Your task to perform on an android device: Empty the shopping cart on costco.com. Add bose soundlink mini to the cart on costco.com, then select checkout. Image 0: 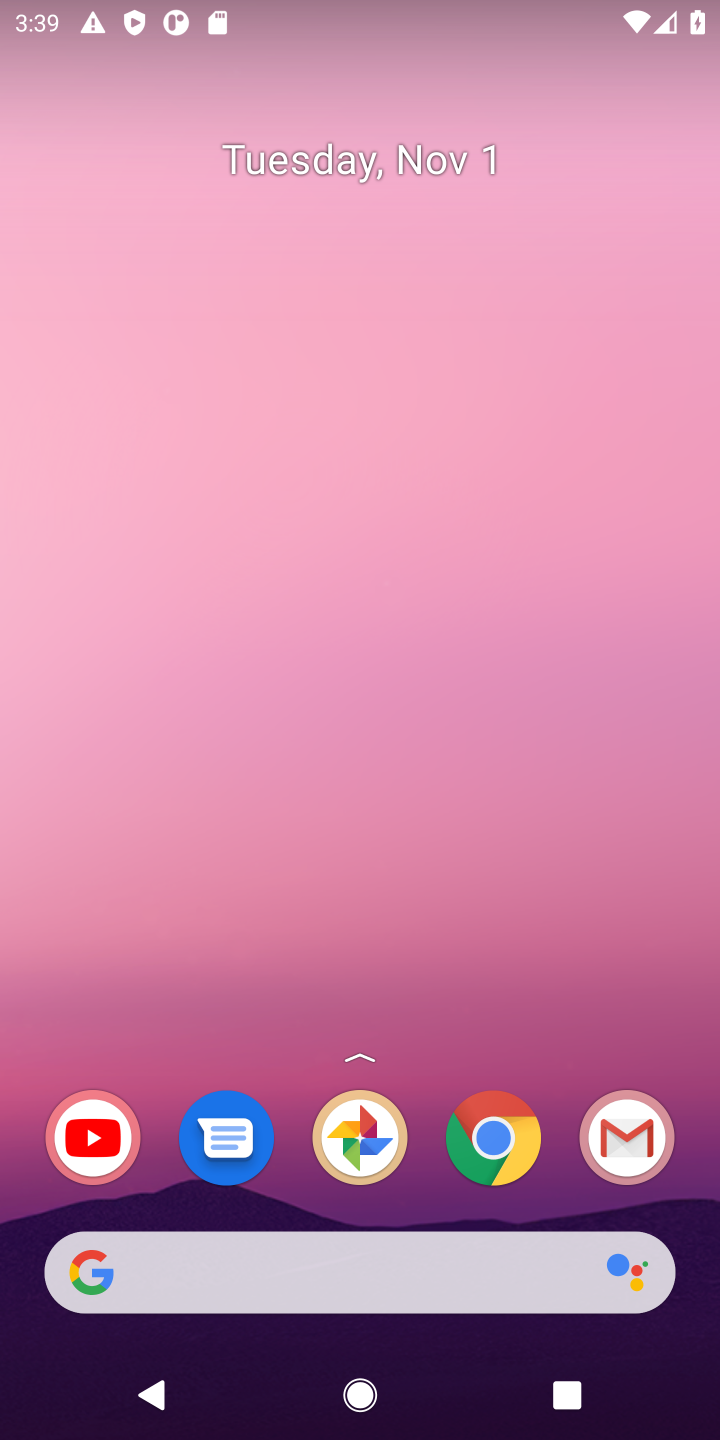
Step 0: click (493, 1145)
Your task to perform on an android device: Empty the shopping cart on costco.com. Add bose soundlink mini to the cart on costco.com, then select checkout. Image 1: 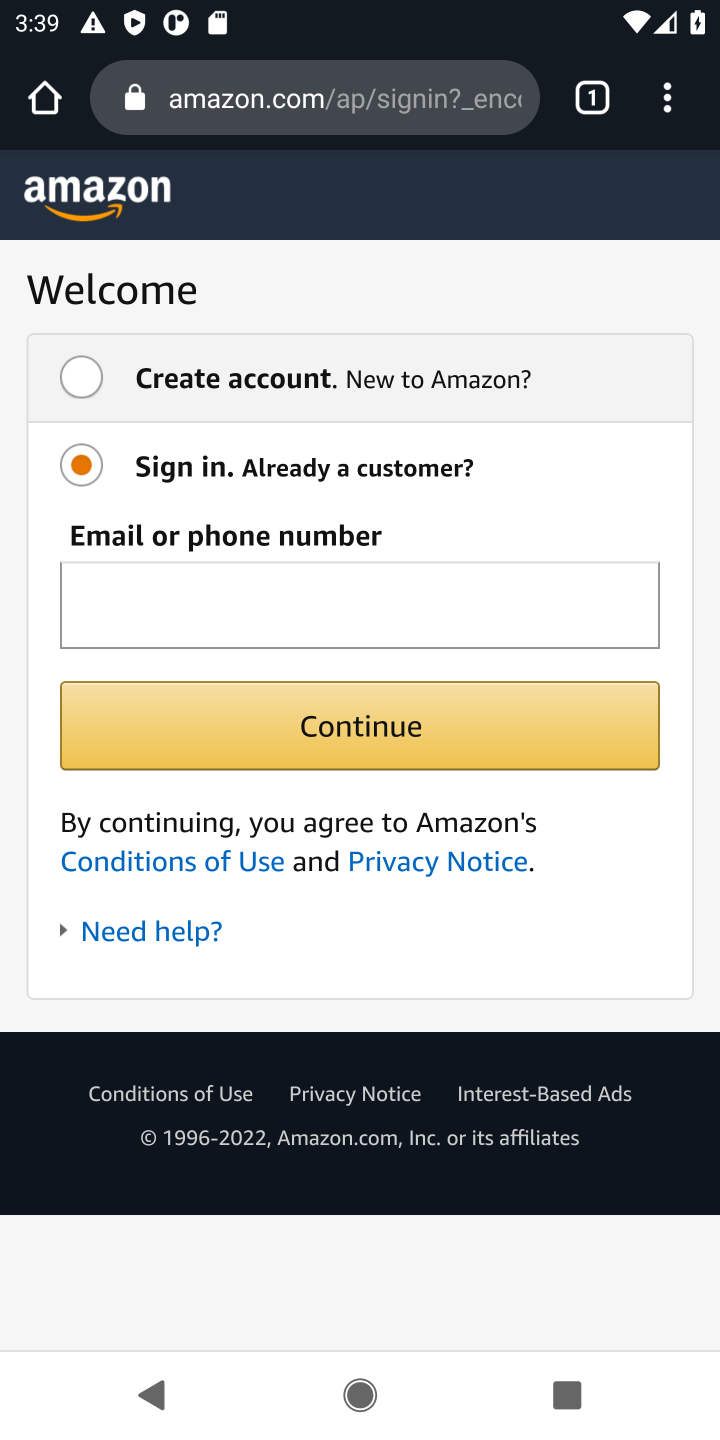
Step 1: click (341, 88)
Your task to perform on an android device: Empty the shopping cart on costco.com. Add bose soundlink mini to the cart on costco.com, then select checkout. Image 2: 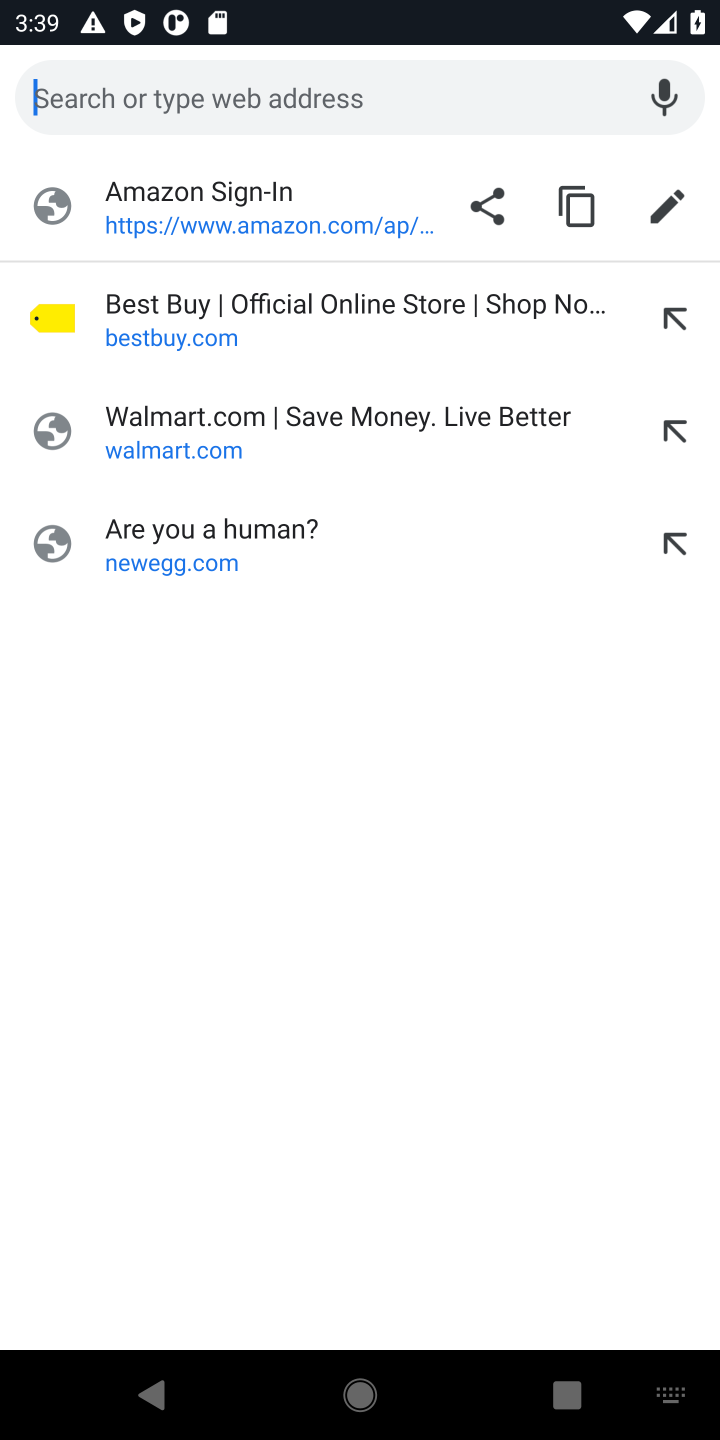
Step 2: type "costco.com"
Your task to perform on an android device: Empty the shopping cart on costco.com. Add bose soundlink mini to the cart on costco.com, then select checkout. Image 3: 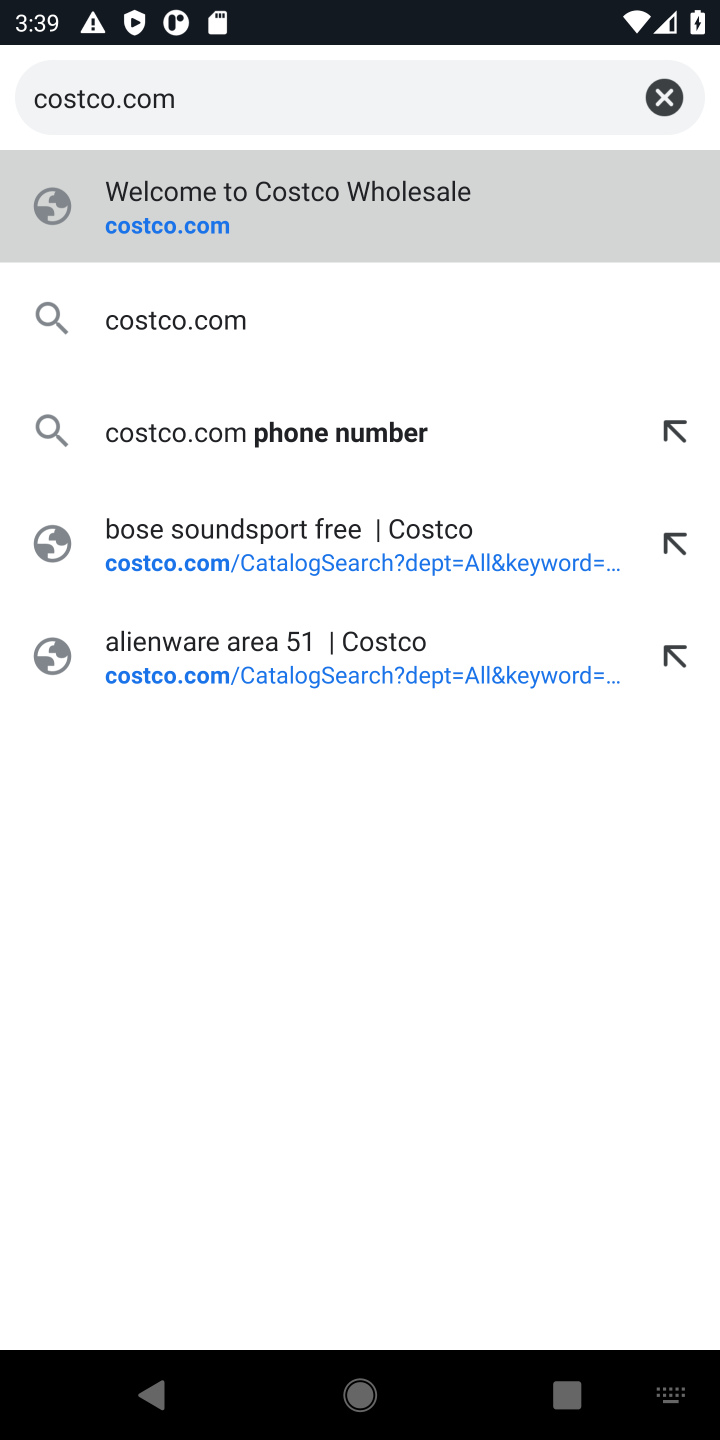
Step 3: click (209, 213)
Your task to perform on an android device: Empty the shopping cart on costco.com. Add bose soundlink mini to the cart on costco.com, then select checkout. Image 4: 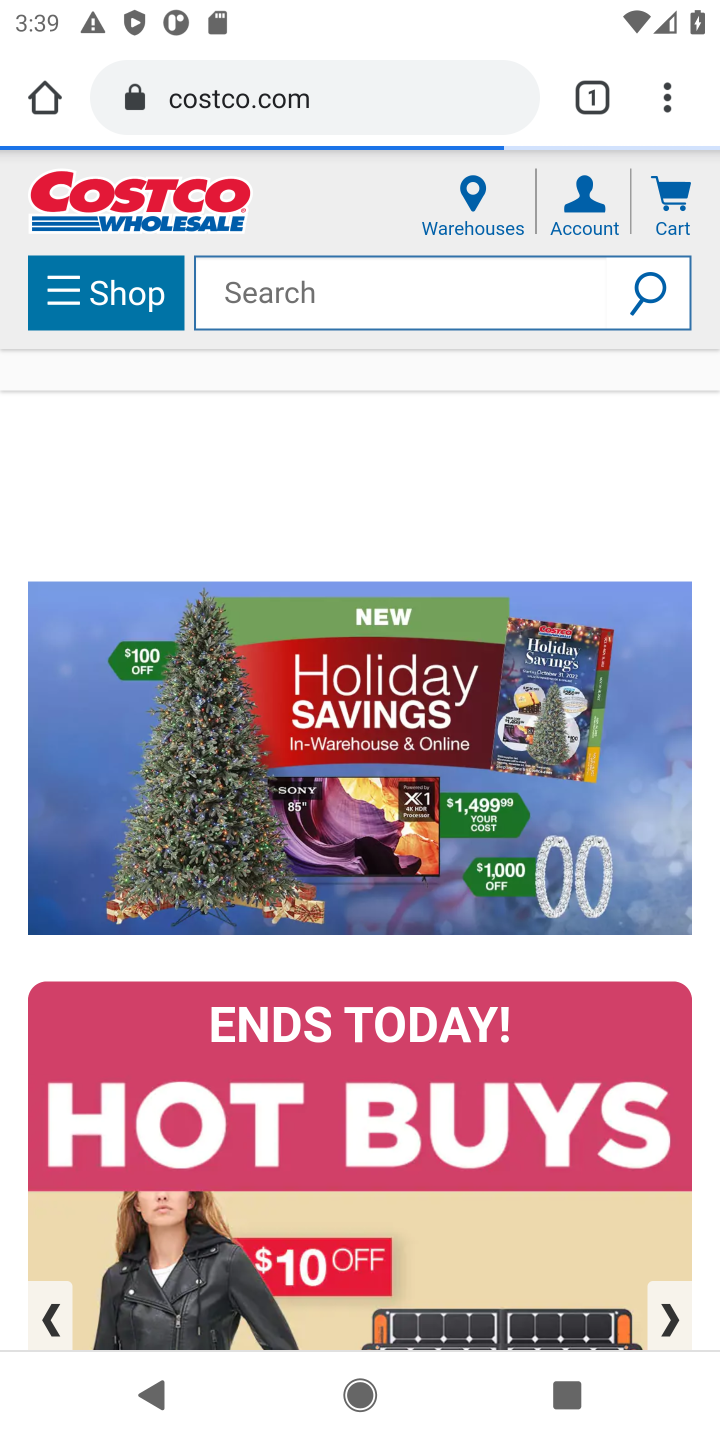
Step 4: click (286, 271)
Your task to perform on an android device: Empty the shopping cart on costco.com. Add bose soundlink mini to the cart on costco.com, then select checkout. Image 5: 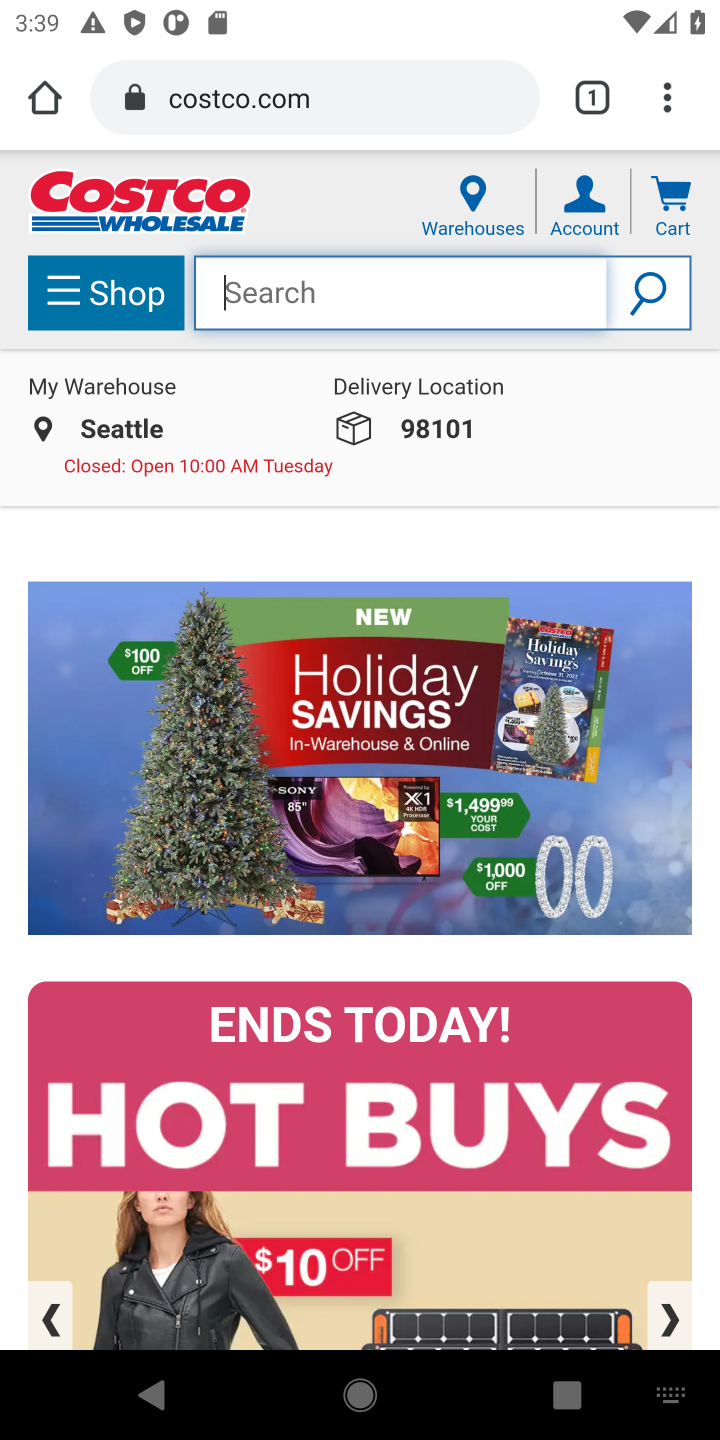
Step 5: type "bose soundlink mini"
Your task to perform on an android device: Empty the shopping cart on costco.com. Add bose soundlink mini to the cart on costco.com, then select checkout. Image 6: 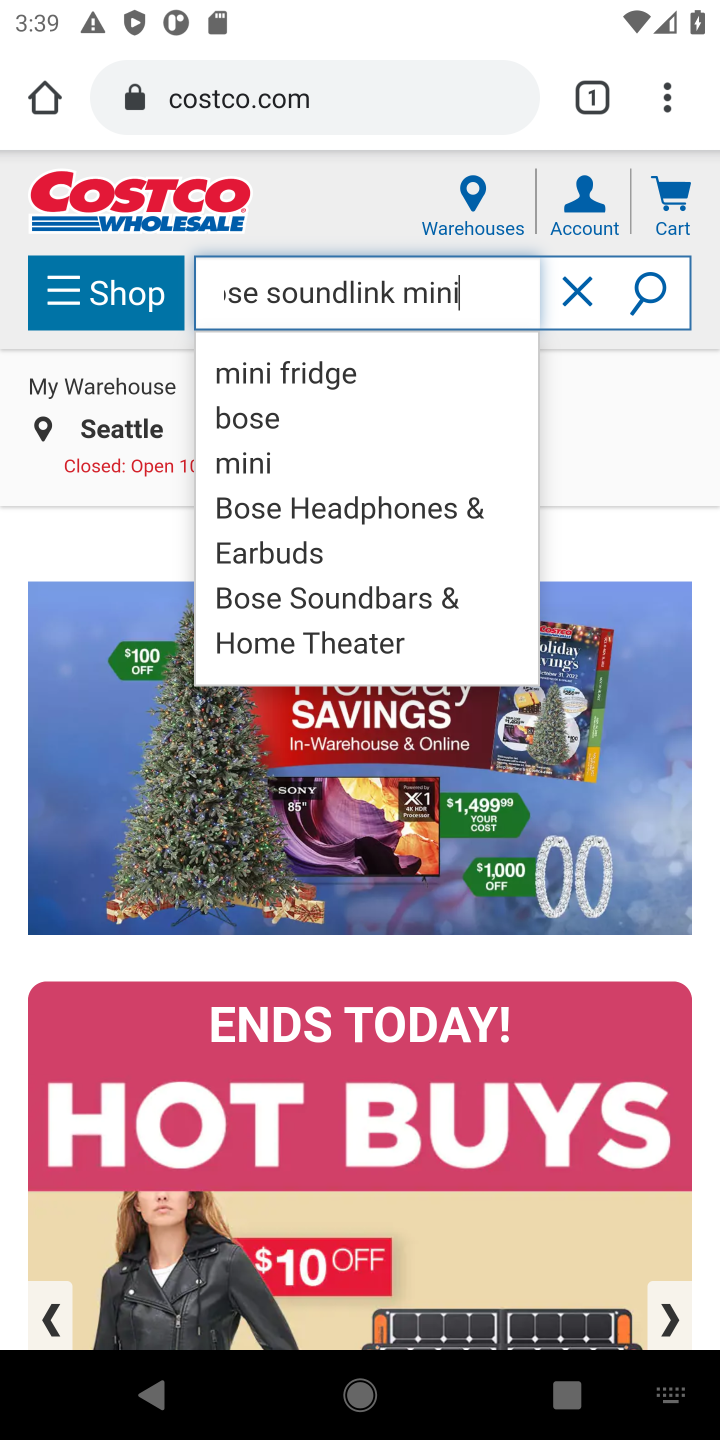
Step 6: click (653, 281)
Your task to perform on an android device: Empty the shopping cart on costco.com. Add bose soundlink mini to the cart on costco.com, then select checkout. Image 7: 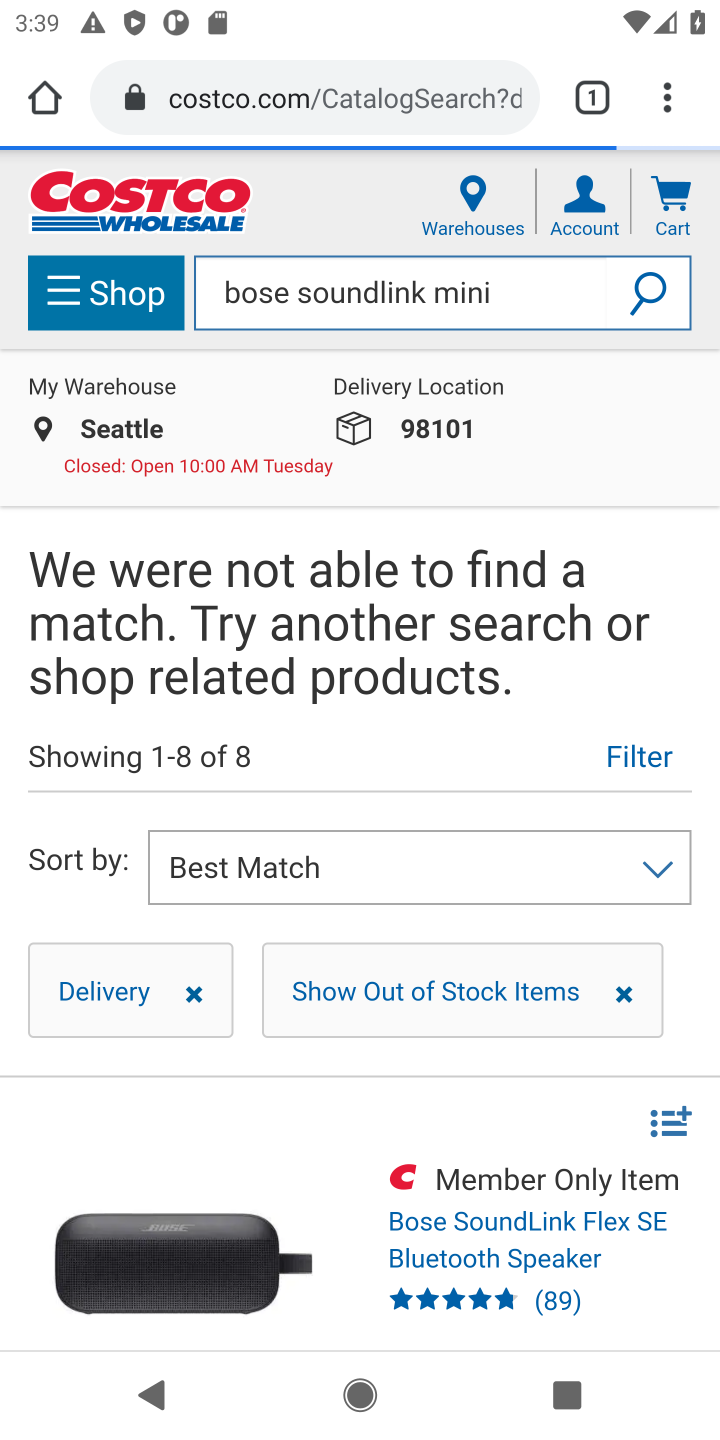
Step 7: task complete